Your task to perform on an android device: Open calendar and show me the third week of next month Image 0: 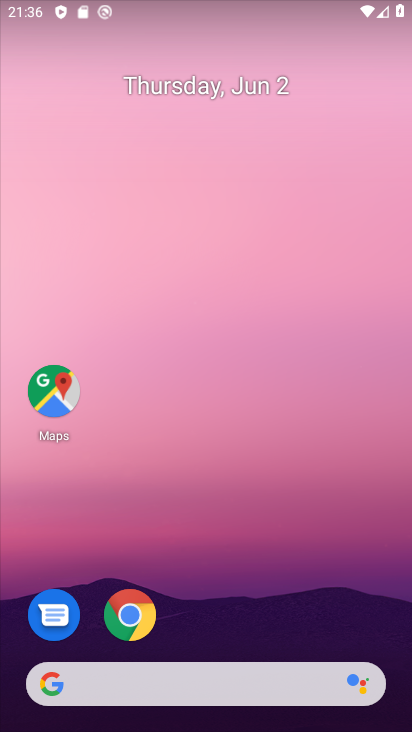
Step 0: drag from (199, 627) to (254, 288)
Your task to perform on an android device: Open calendar and show me the third week of next month Image 1: 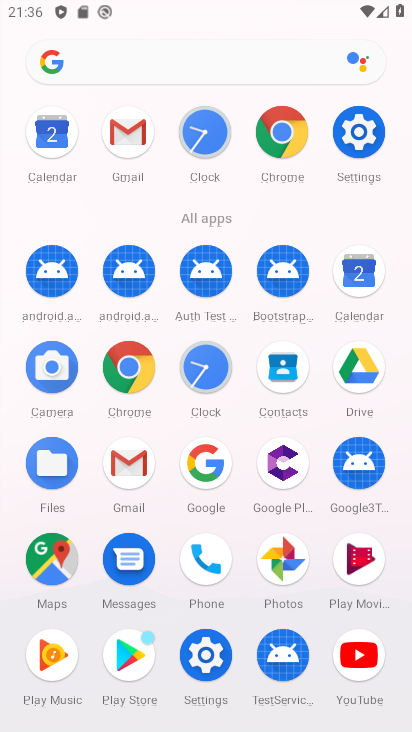
Step 1: click (353, 284)
Your task to perform on an android device: Open calendar and show me the third week of next month Image 2: 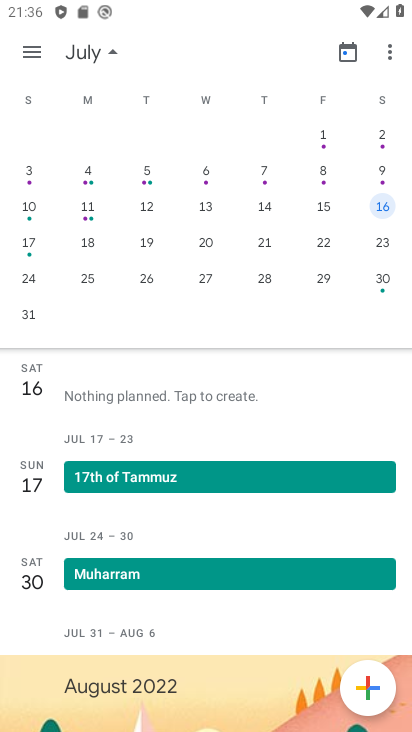
Step 2: click (30, 206)
Your task to perform on an android device: Open calendar and show me the third week of next month Image 3: 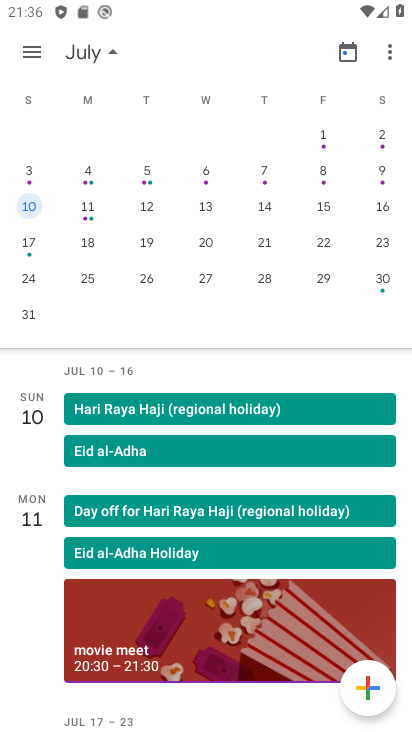
Step 3: click (84, 208)
Your task to perform on an android device: Open calendar and show me the third week of next month Image 4: 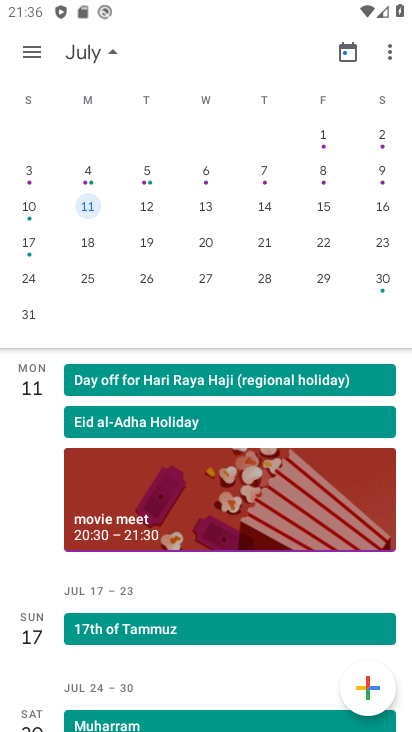
Step 4: click (154, 208)
Your task to perform on an android device: Open calendar and show me the third week of next month Image 5: 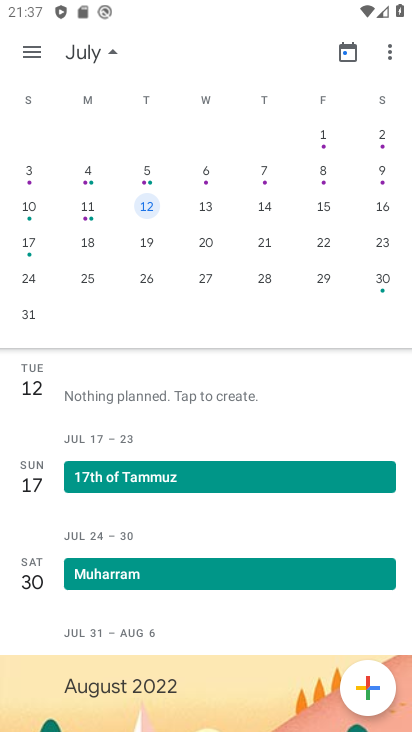
Step 5: click (212, 211)
Your task to perform on an android device: Open calendar and show me the third week of next month Image 6: 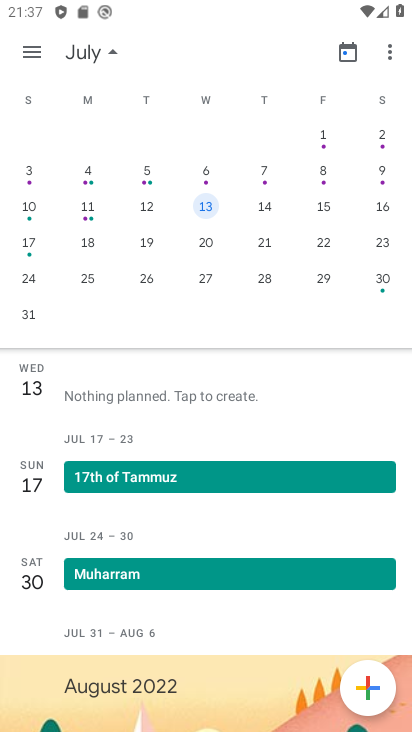
Step 6: click (251, 209)
Your task to perform on an android device: Open calendar and show me the third week of next month Image 7: 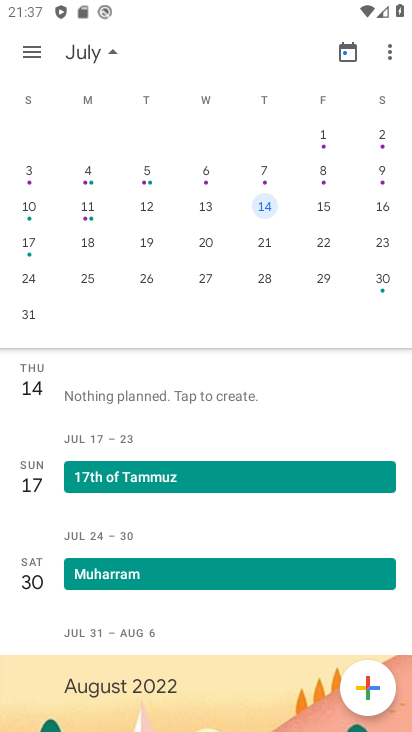
Step 7: click (319, 209)
Your task to perform on an android device: Open calendar and show me the third week of next month Image 8: 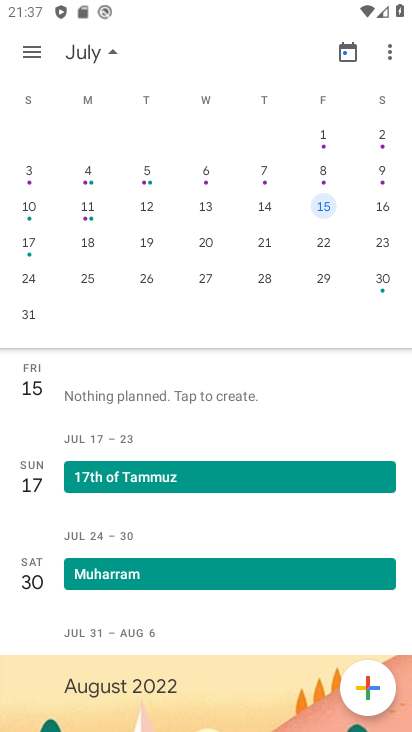
Step 8: task complete